Your task to perform on an android device: Add "logitech g933" to the cart on bestbuy.com, then select checkout. Image 0: 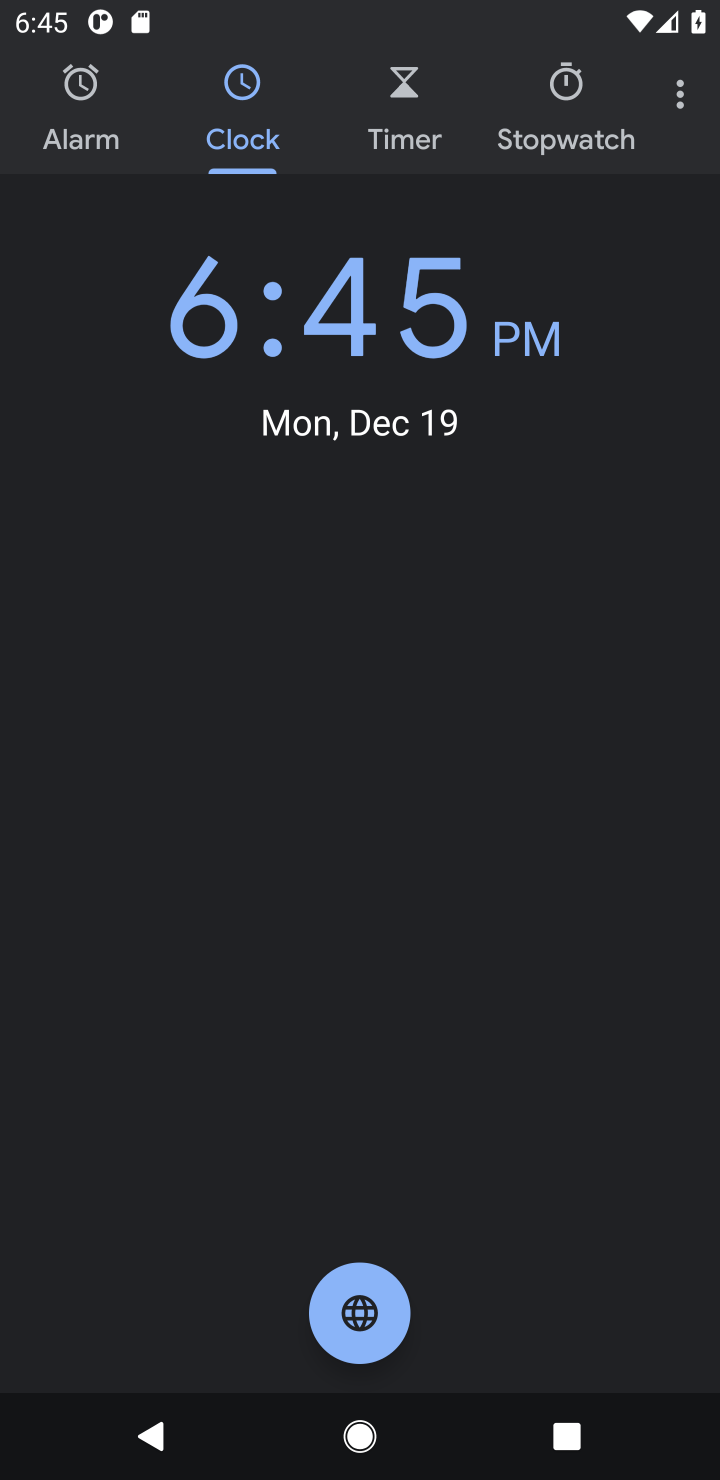
Step 0: press home button
Your task to perform on an android device: Add "logitech g933" to the cart on bestbuy.com, then select checkout. Image 1: 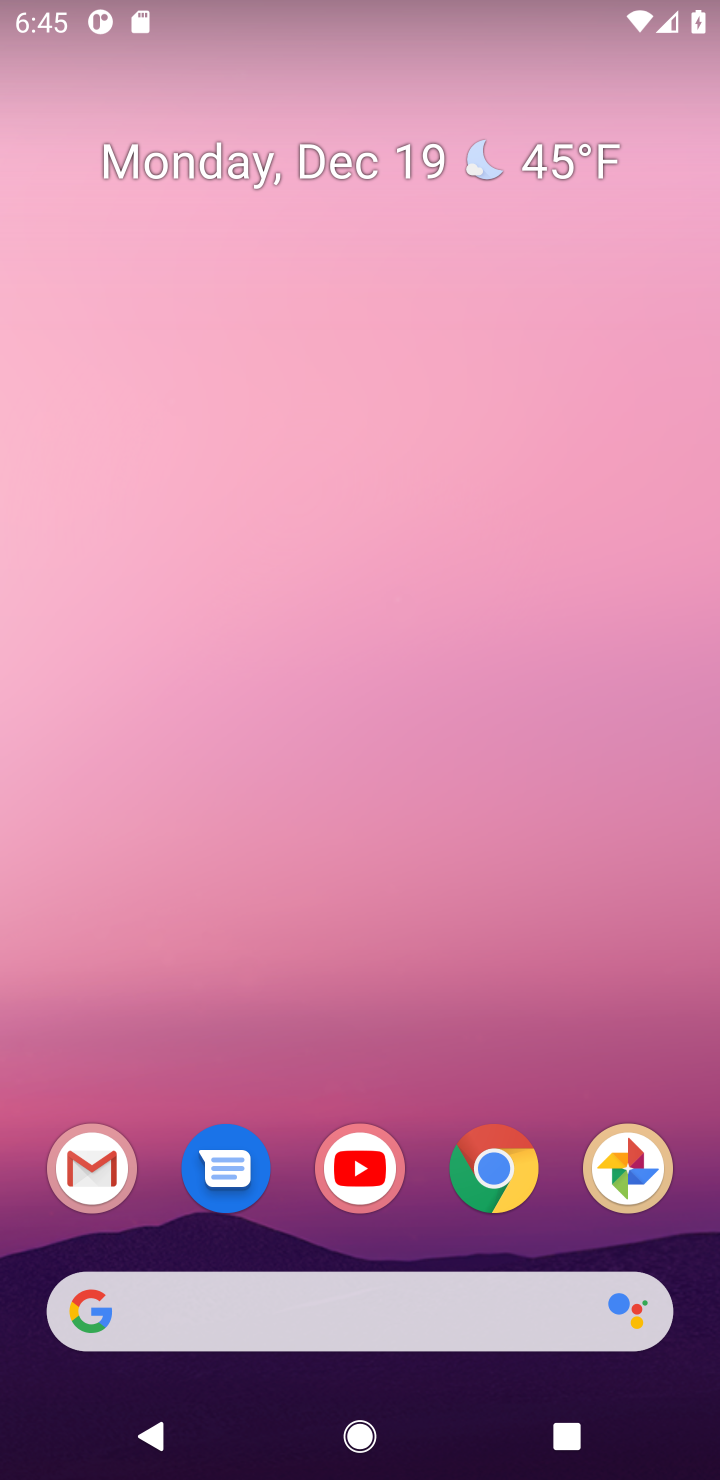
Step 1: click (500, 1169)
Your task to perform on an android device: Add "logitech g933" to the cart on bestbuy.com, then select checkout. Image 2: 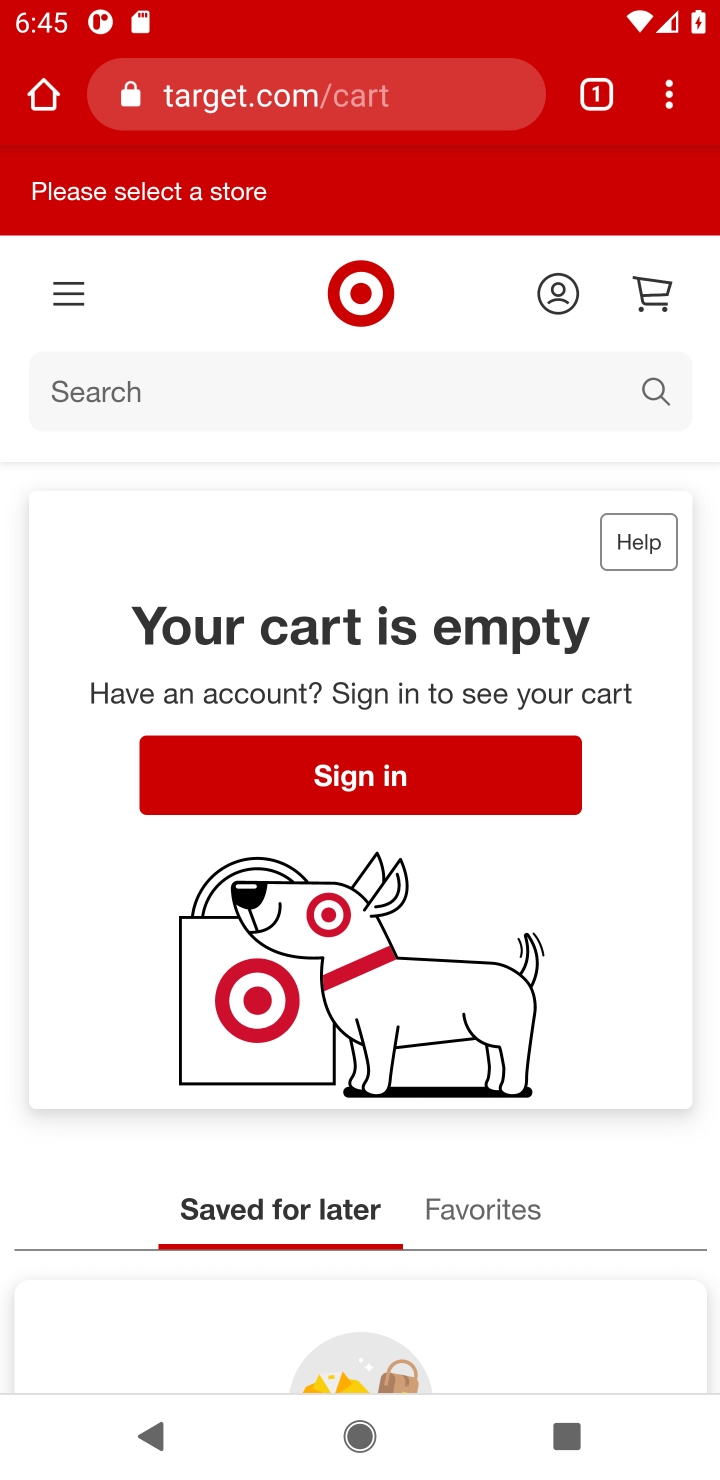
Step 2: click (299, 109)
Your task to perform on an android device: Add "logitech g933" to the cart on bestbuy.com, then select checkout. Image 3: 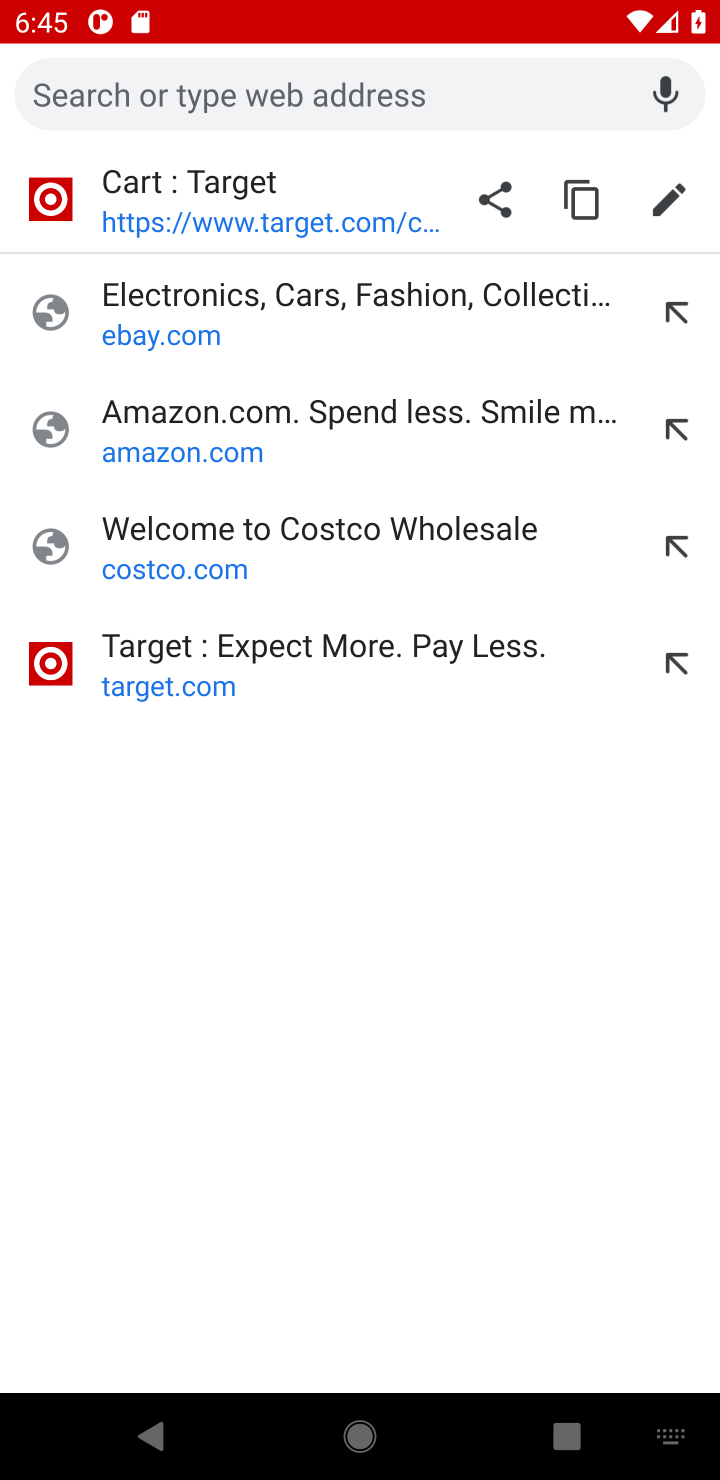
Step 3: type "bestbuy.com"
Your task to perform on an android device: Add "logitech g933" to the cart on bestbuy.com, then select checkout. Image 4: 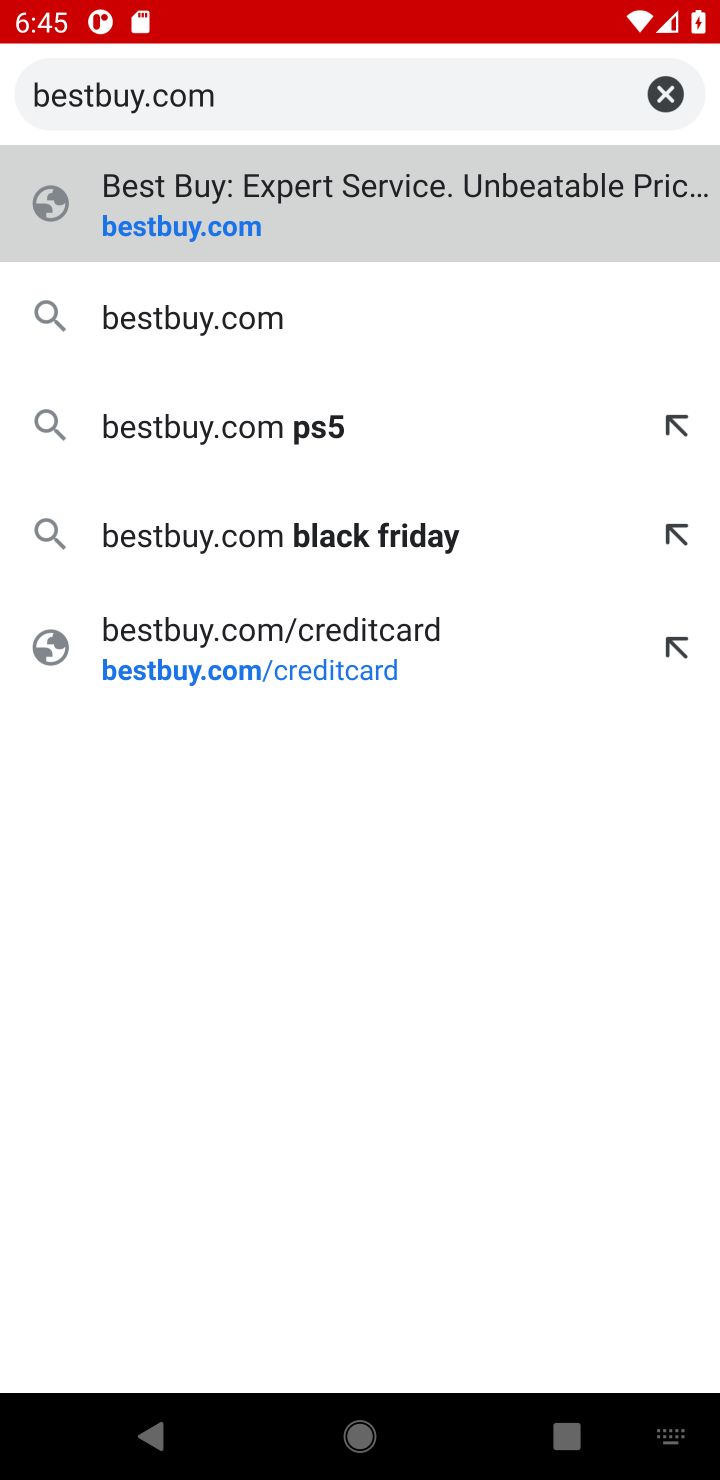
Step 4: click (148, 221)
Your task to perform on an android device: Add "logitech g933" to the cart on bestbuy.com, then select checkout. Image 5: 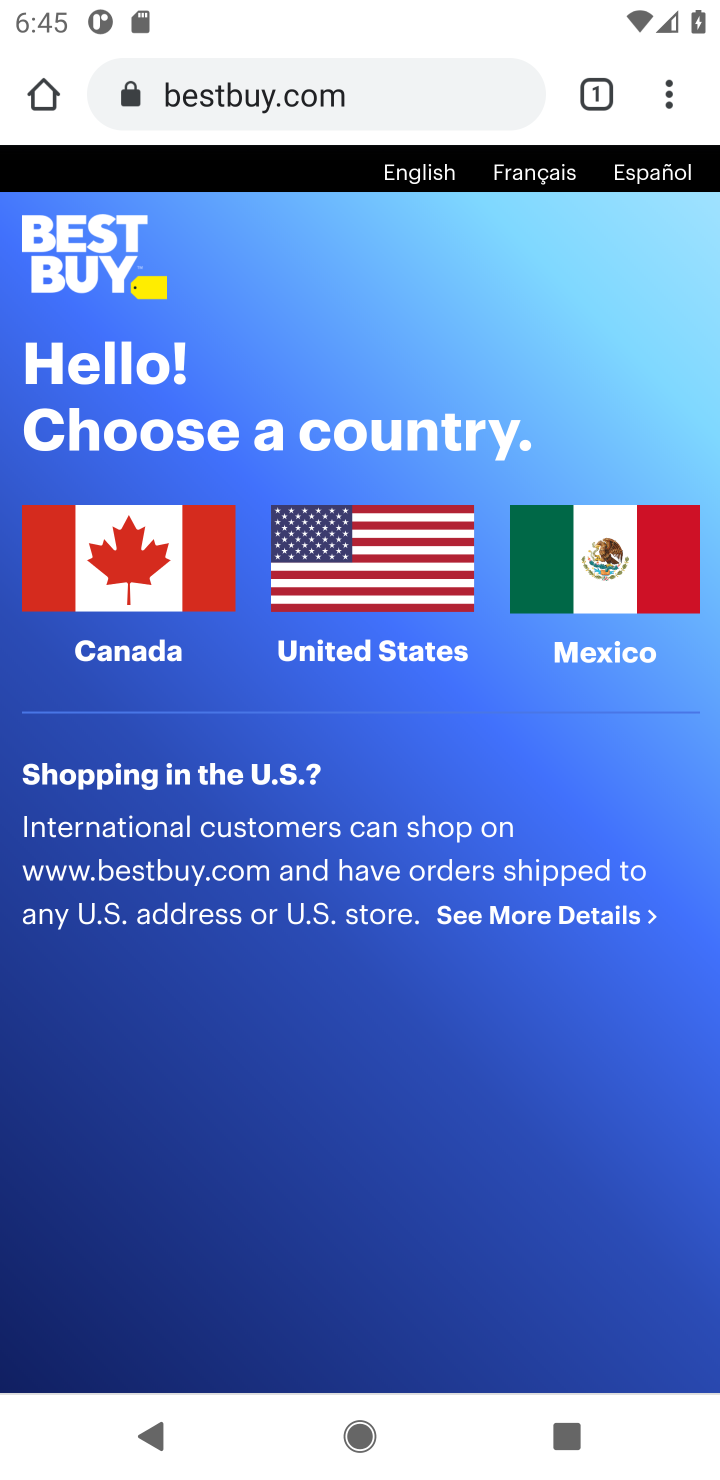
Step 5: click (432, 576)
Your task to perform on an android device: Add "logitech g933" to the cart on bestbuy.com, then select checkout. Image 6: 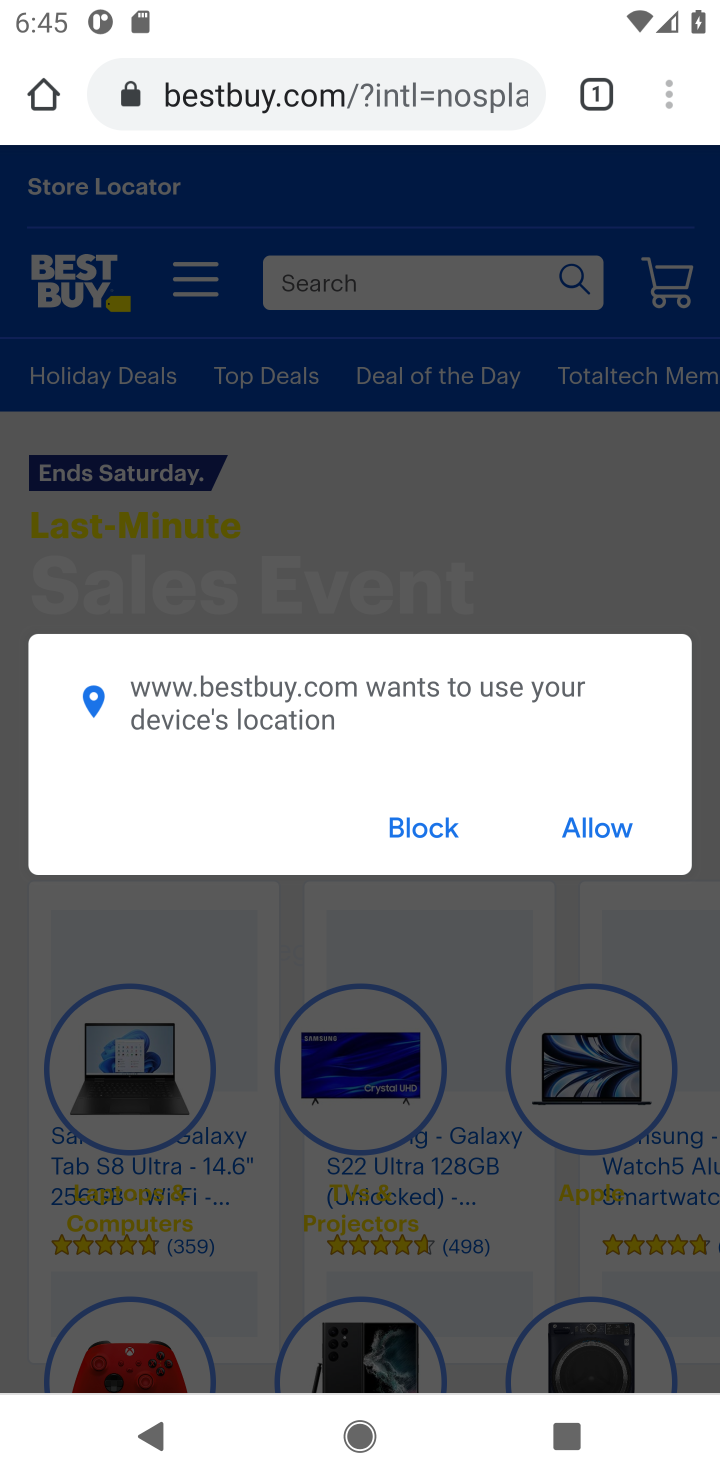
Step 6: click (415, 835)
Your task to perform on an android device: Add "logitech g933" to the cart on bestbuy.com, then select checkout. Image 7: 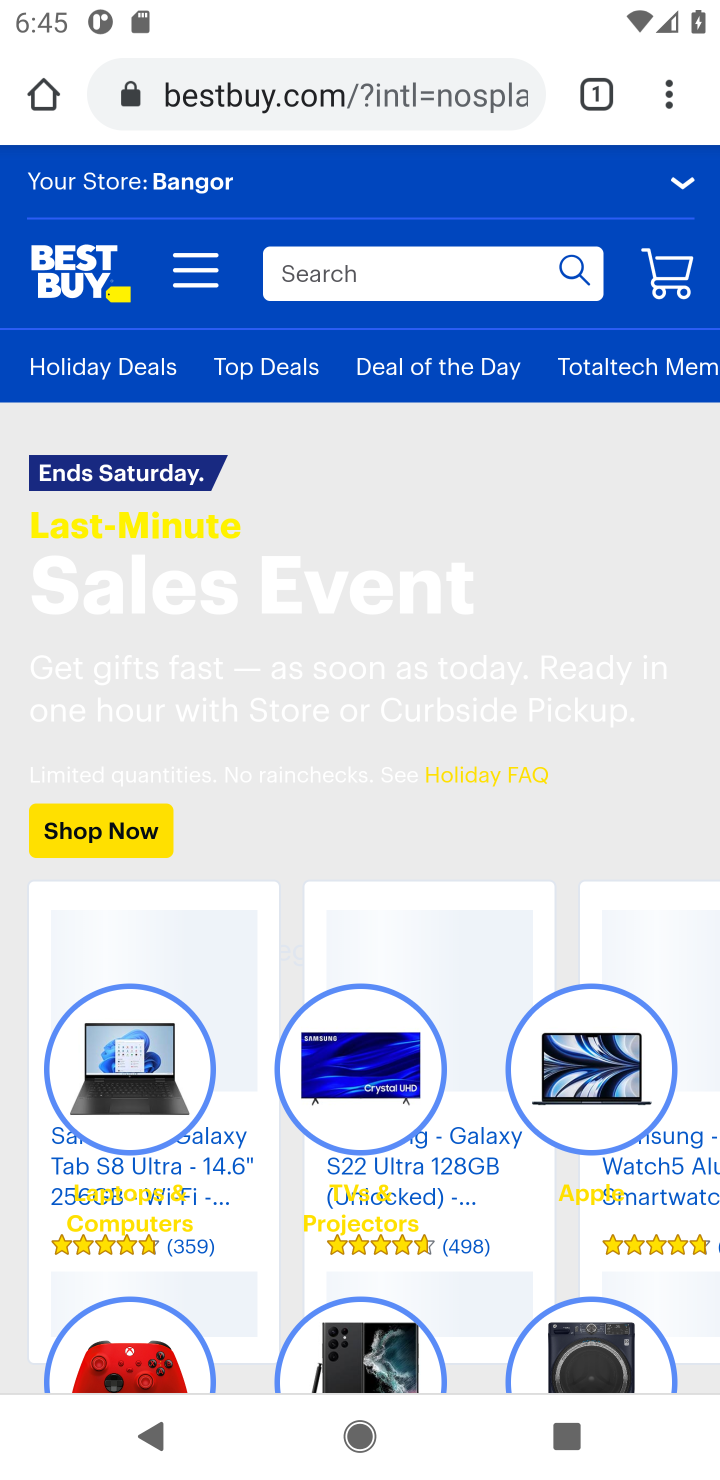
Step 7: click (343, 262)
Your task to perform on an android device: Add "logitech g933" to the cart on bestbuy.com, then select checkout. Image 8: 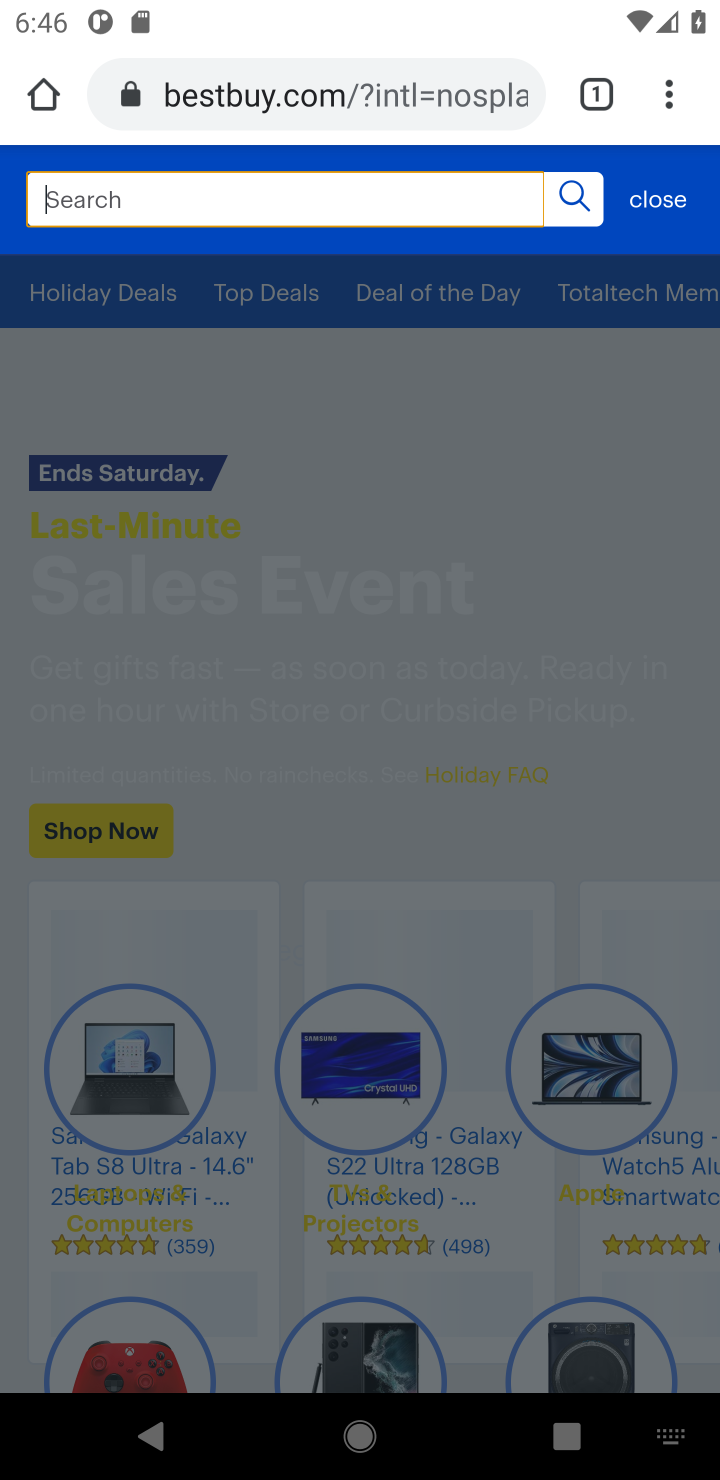
Step 8: type "logitech g933"
Your task to perform on an android device: Add "logitech g933" to the cart on bestbuy.com, then select checkout. Image 9: 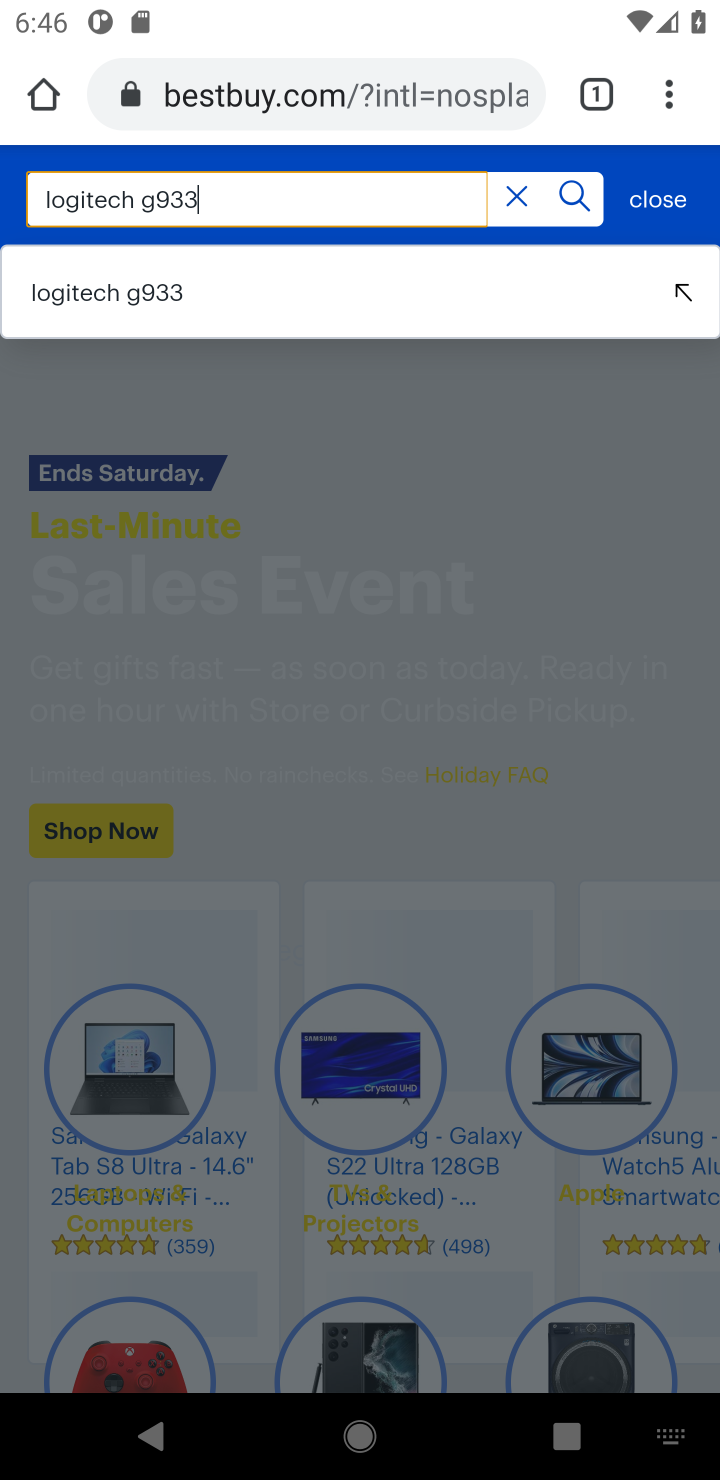
Step 9: click (102, 289)
Your task to perform on an android device: Add "logitech g933" to the cart on bestbuy.com, then select checkout. Image 10: 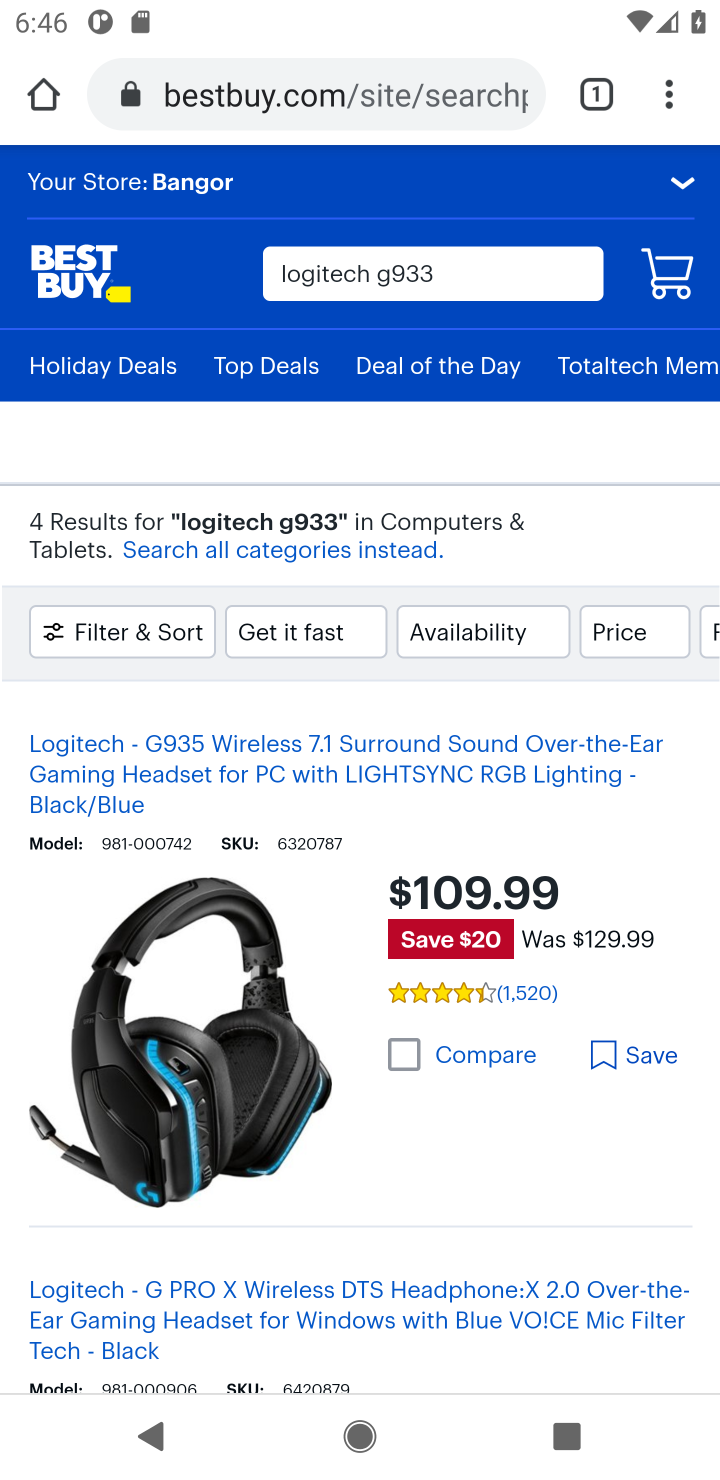
Step 10: task complete